Your task to perform on an android device: What's a good restaurant in Houston? Image 0: 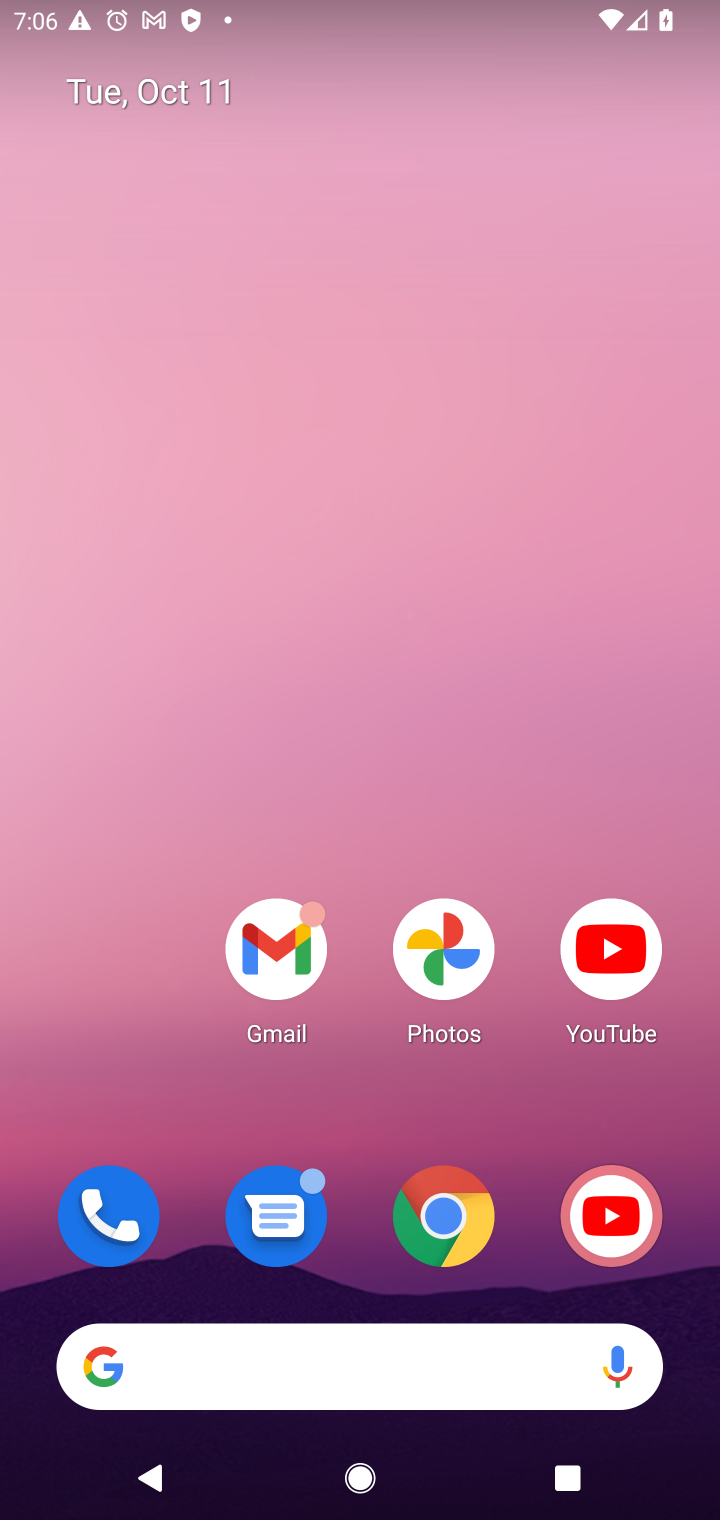
Step 0: drag from (432, 1357) to (522, 407)
Your task to perform on an android device: What's a good restaurant in Houston? Image 1: 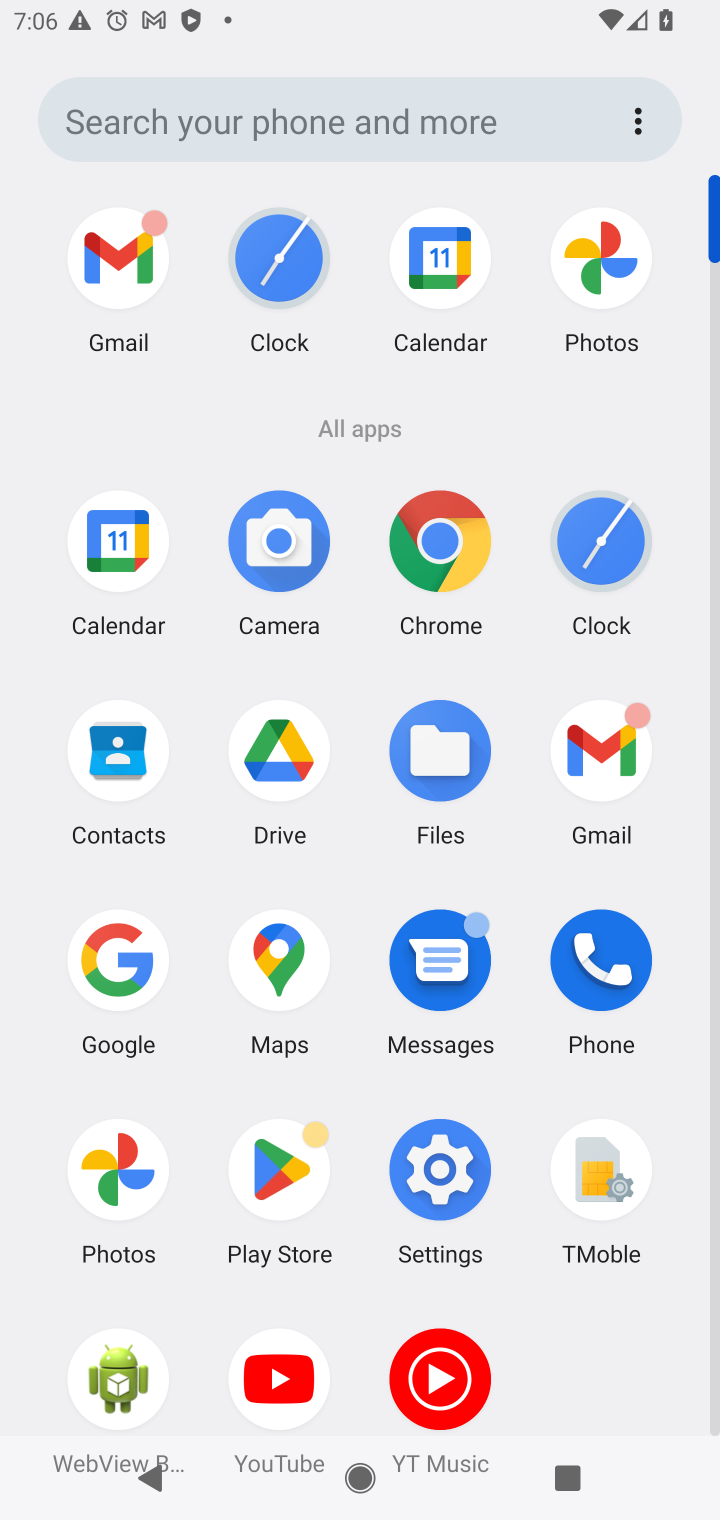
Step 1: click (467, 542)
Your task to perform on an android device: What's a good restaurant in Houston? Image 2: 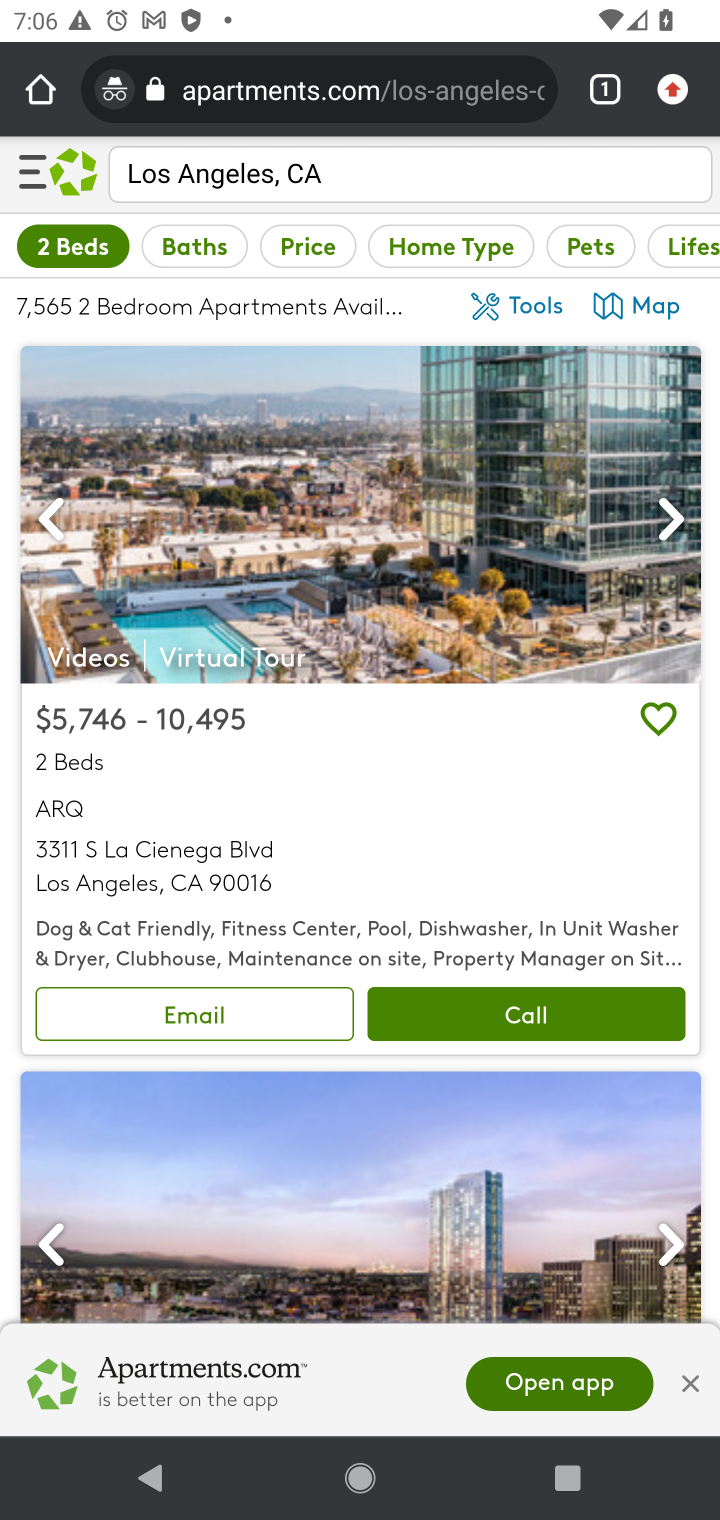
Step 2: click (337, 87)
Your task to perform on an android device: What's a good restaurant in Houston? Image 3: 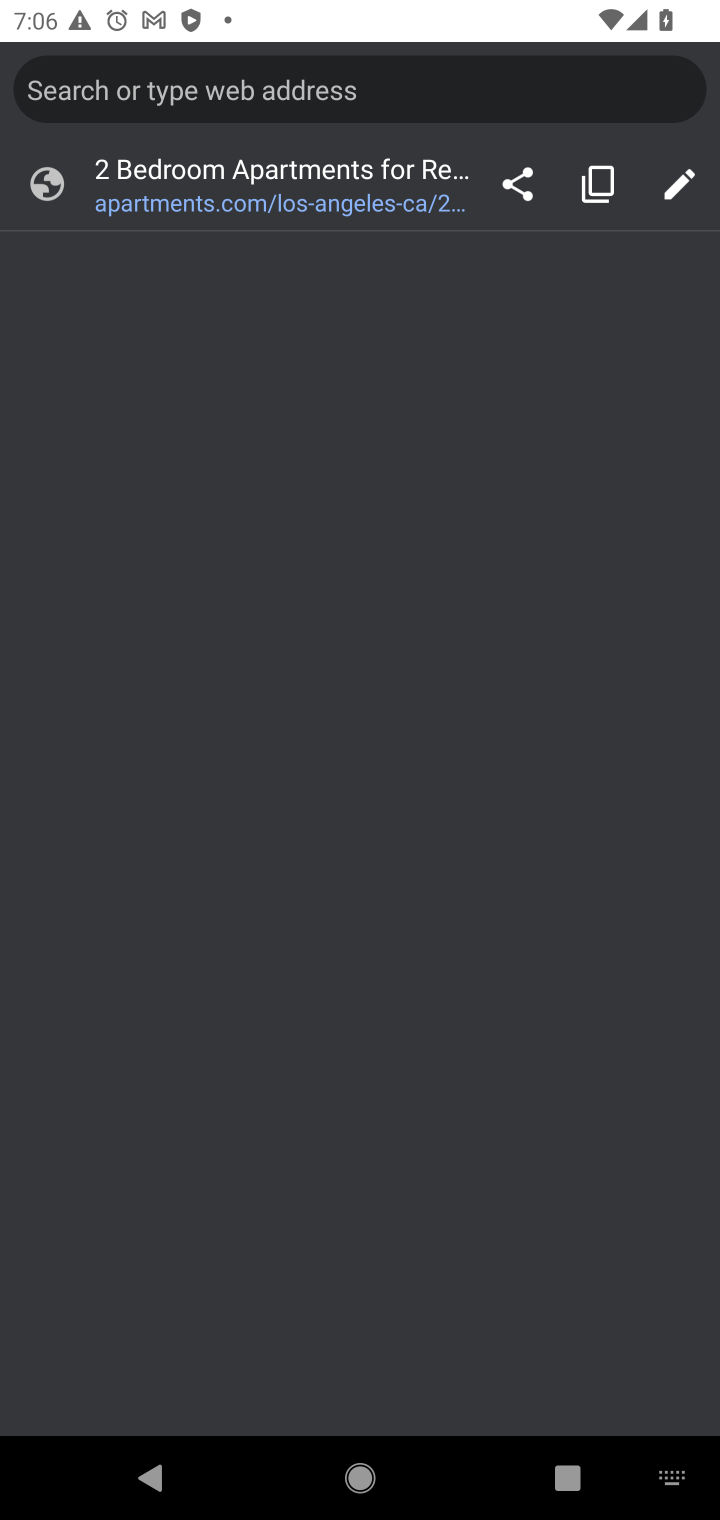
Step 3: type "What's a good restaurant in Houston?"
Your task to perform on an android device: What's a good restaurant in Houston? Image 4: 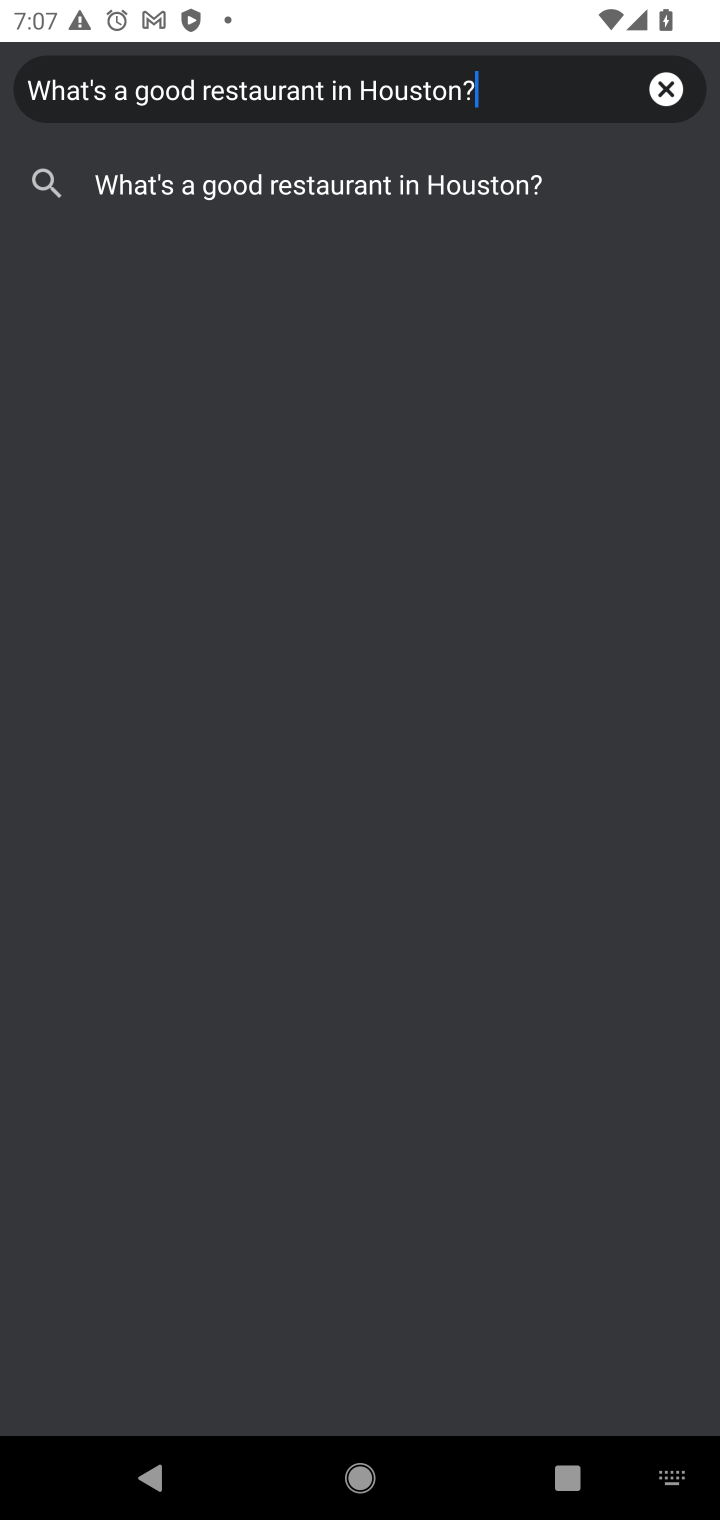
Step 4: press enter
Your task to perform on an android device: What's a good restaurant in Houston? Image 5: 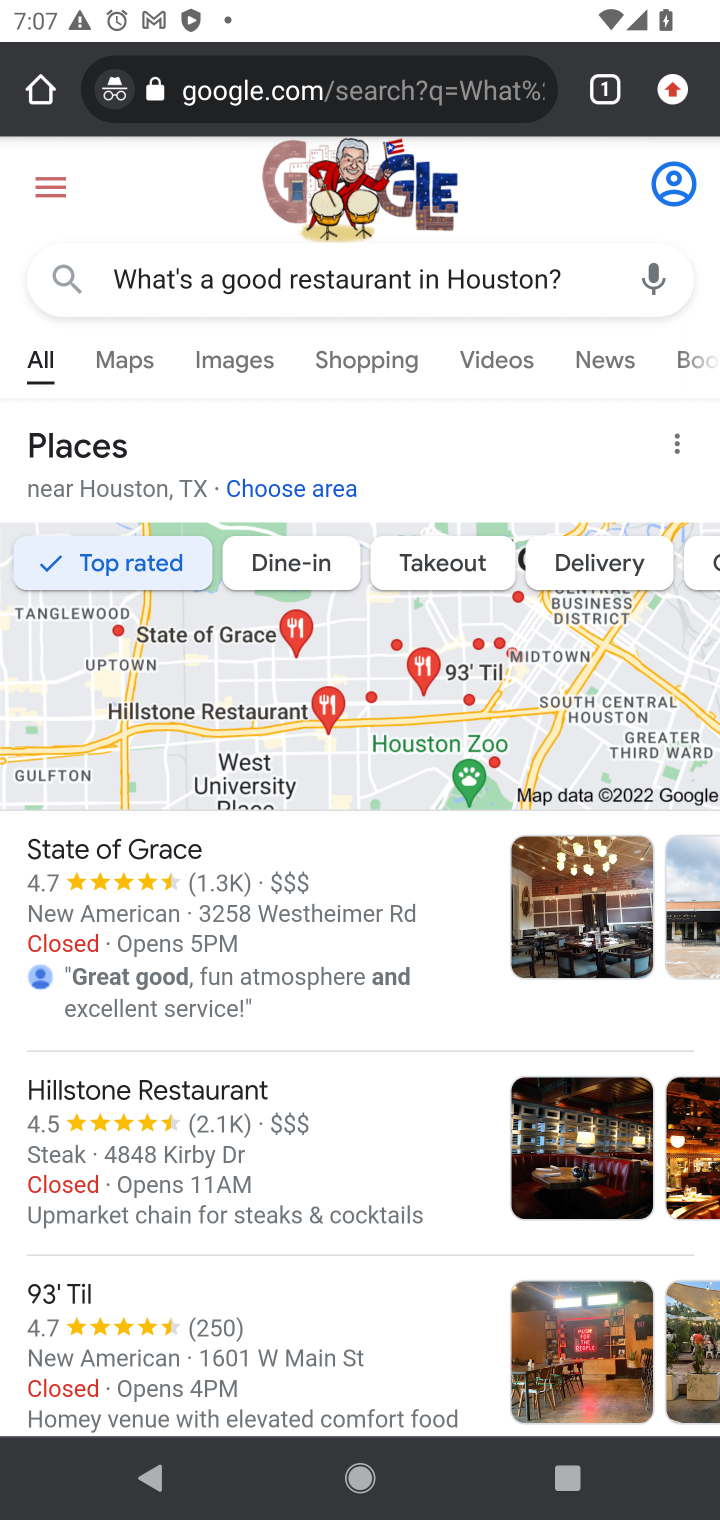
Step 5: task complete